Your task to perform on an android device: Open Chrome and go to the settings page Image 0: 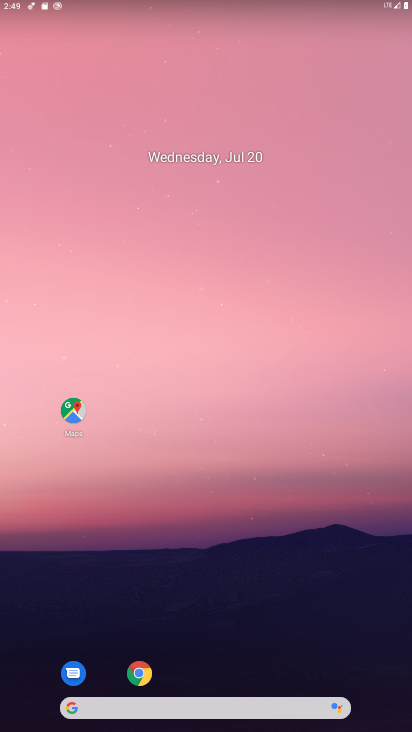
Step 0: click (145, 678)
Your task to perform on an android device: Open Chrome and go to the settings page Image 1: 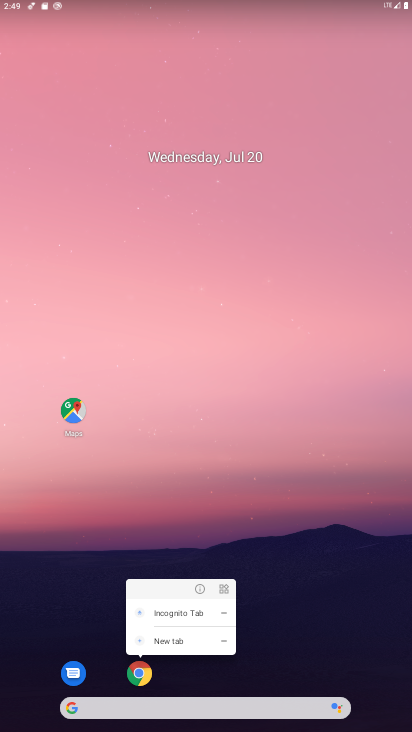
Step 1: click (145, 678)
Your task to perform on an android device: Open Chrome and go to the settings page Image 2: 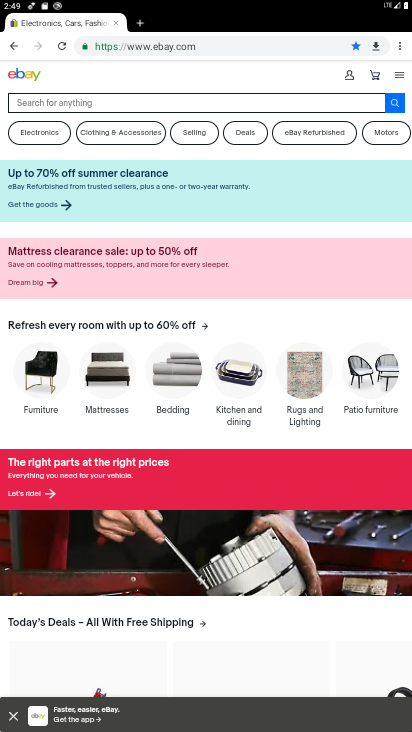
Step 2: click (397, 41)
Your task to perform on an android device: Open Chrome and go to the settings page Image 3: 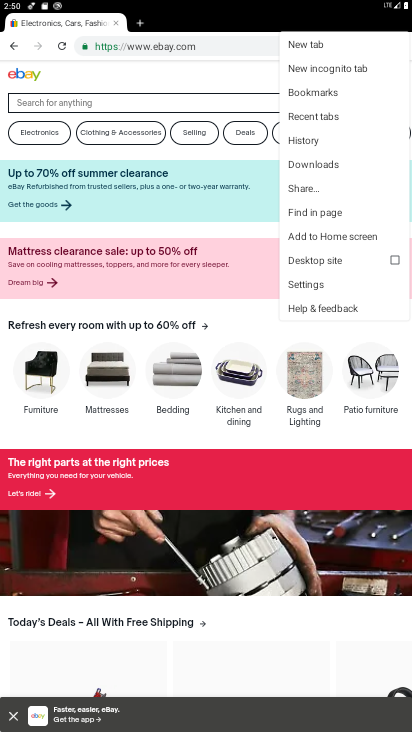
Step 3: click (306, 285)
Your task to perform on an android device: Open Chrome and go to the settings page Image 4: 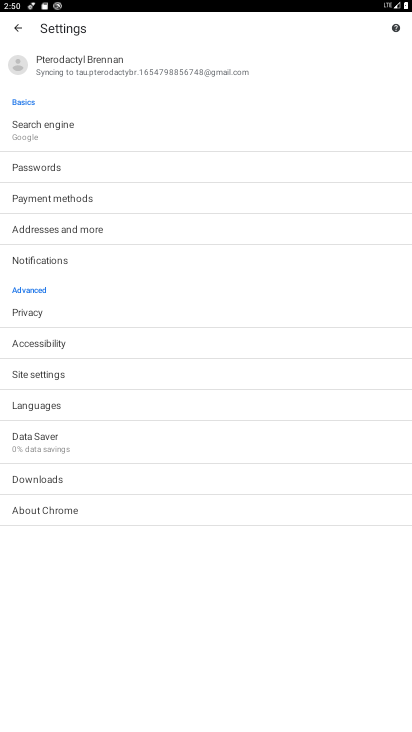
Step 4: task complete